Your task to perform on an android device: Show the shopping cart on bestbuy.com. Search for "bose quietcomfort 35" on bestbuy.com, select the first entry, add it to the cart, then select checkout. Image 0: 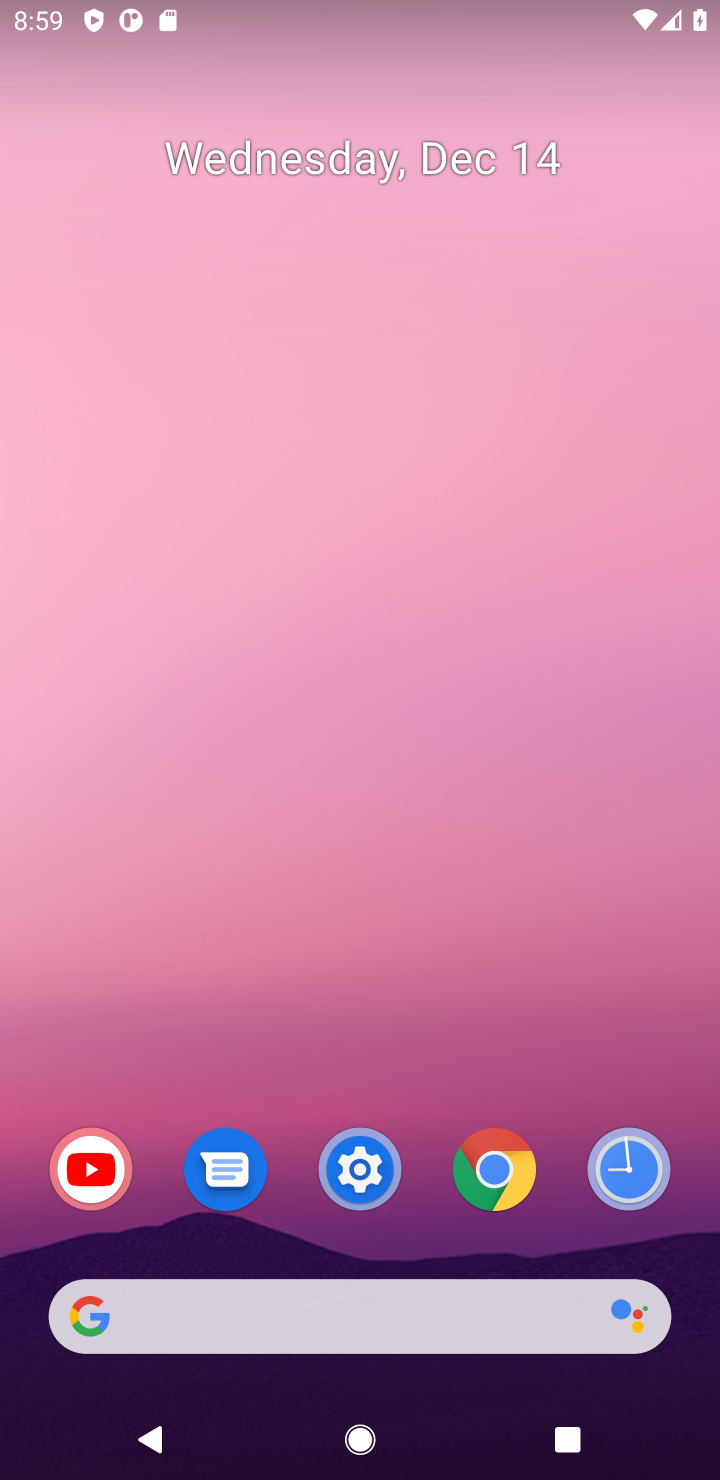
Step 0: click (487, 1158)
Your task to perform on an android device: Show the shopping cart on bestbuy.com. Search for "bose quietcomfort 35" on bestbuy.com, select the first entry, add it to the cart, then select checkout. Image 1: 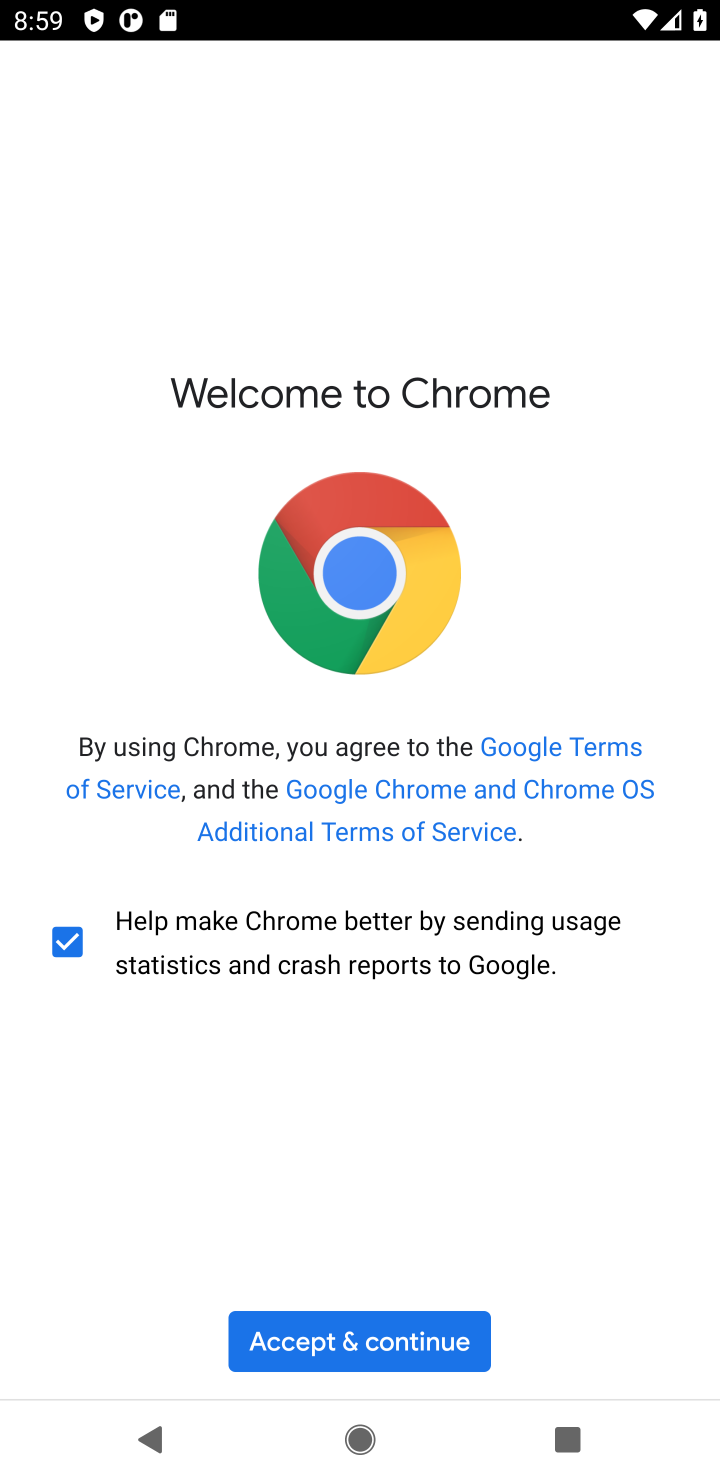
Step 1: click (333, 1335)
Your task to perform on an android device: Show the shopping cart on bestbuy.com. Search for "bose quietcomfort 35" on bestbuy.com, select the first entry, add it to the cart, then select checkout. Image 2: 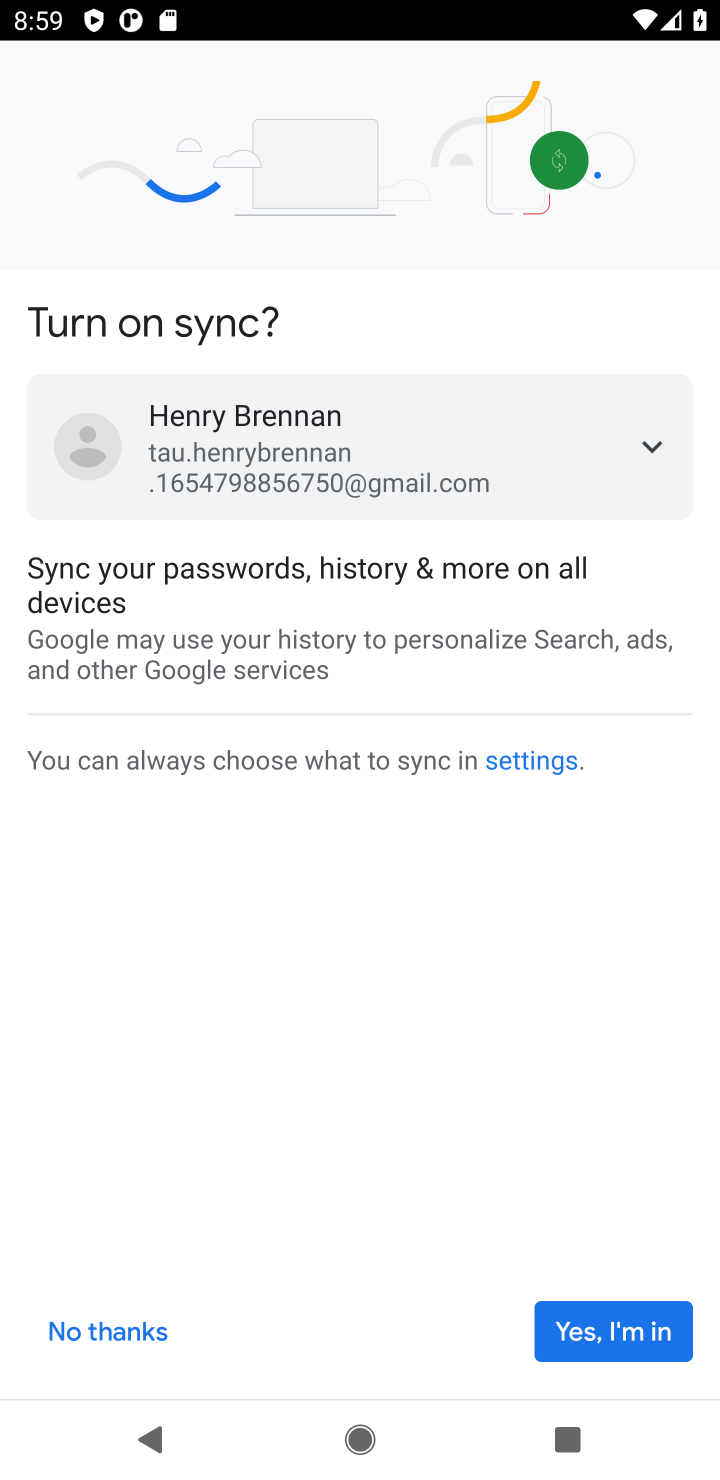
Step 2: click (583, 1318)
Your task to perform on an android device: Show the shopping cart on bestbuy.com. Search for "bose quietcomfort 35" on bestbuy.com, select the first entry, add it to the cart, then select checkout. Image 3: 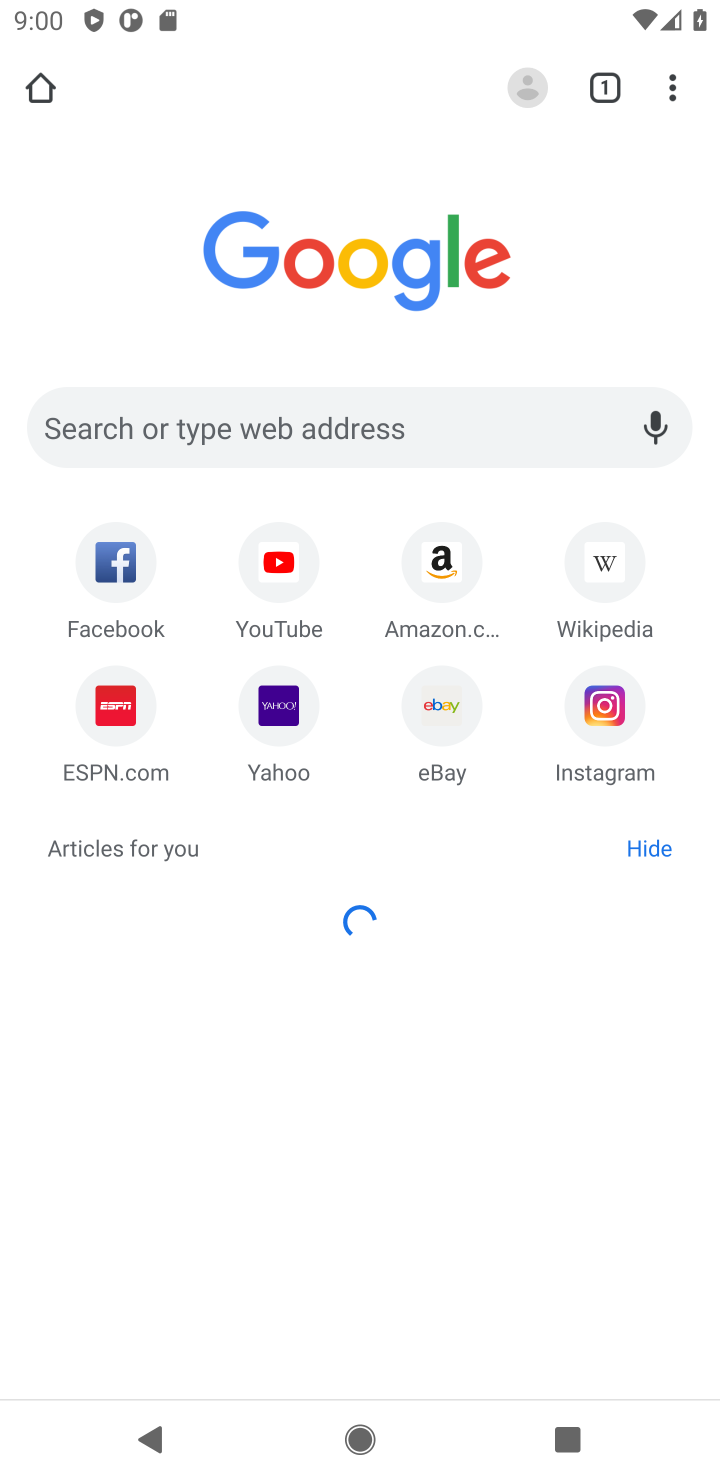
Step 3: click (273, 435)
Your task to perform on an android device: Show the shopping cart on bestbuy.com. Search for "bose quietcomfort 35" on bestbuy.com, select the first entry, add it to the cart, then select checkout. Image 4: 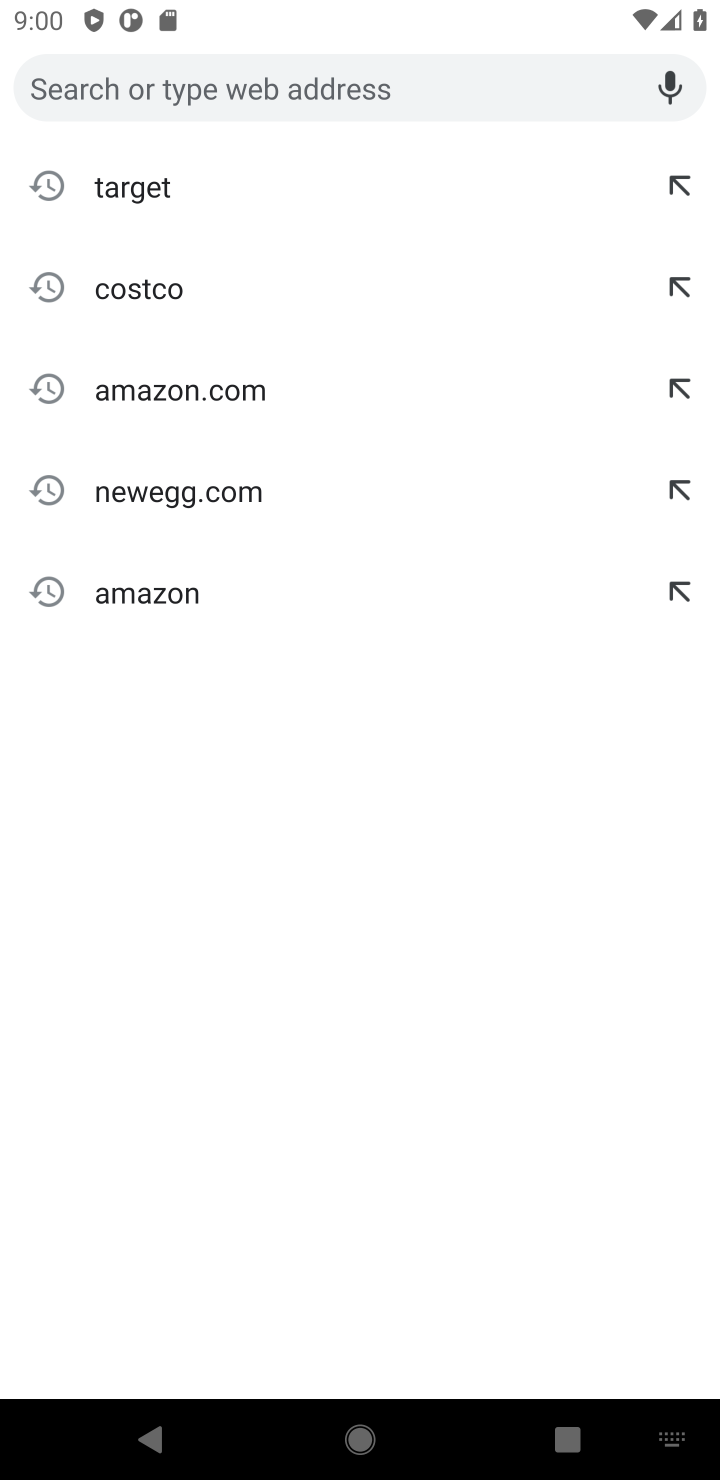
Step 4: type "bestbuy"
Your task to perform on an android device: Show the shopping cart on bestbuy.com. Search for "bose quietcomfort 35" on bestbuy.com, select the first entry, add it to the cart, then select checkout. Image 5: 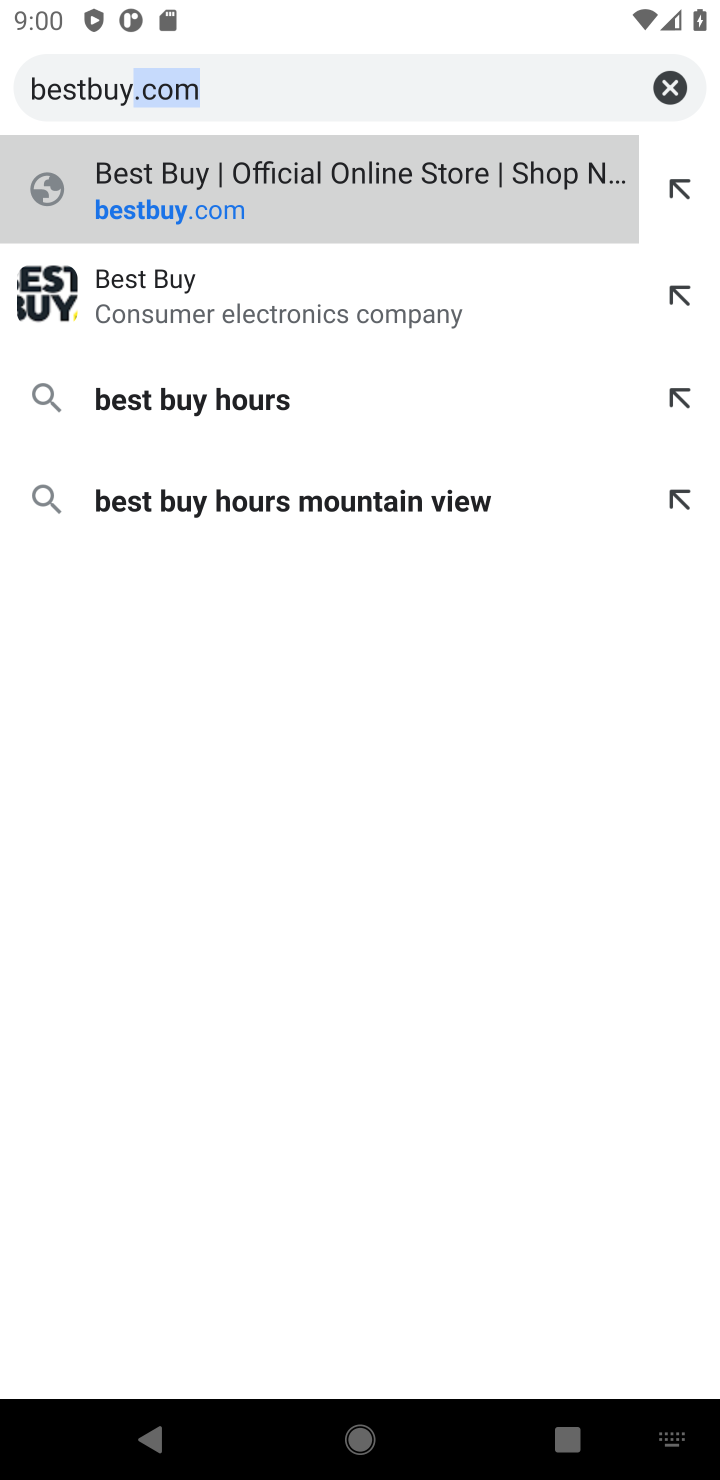
Step 5: click (163, 79)
Your task to perform on an android device: Show the shopping cart on bestbuy.com. Search for "bose quietcomfort 35" on bestbuy.com, select the first entry, add it to the cart, then select checkout. Image 6: 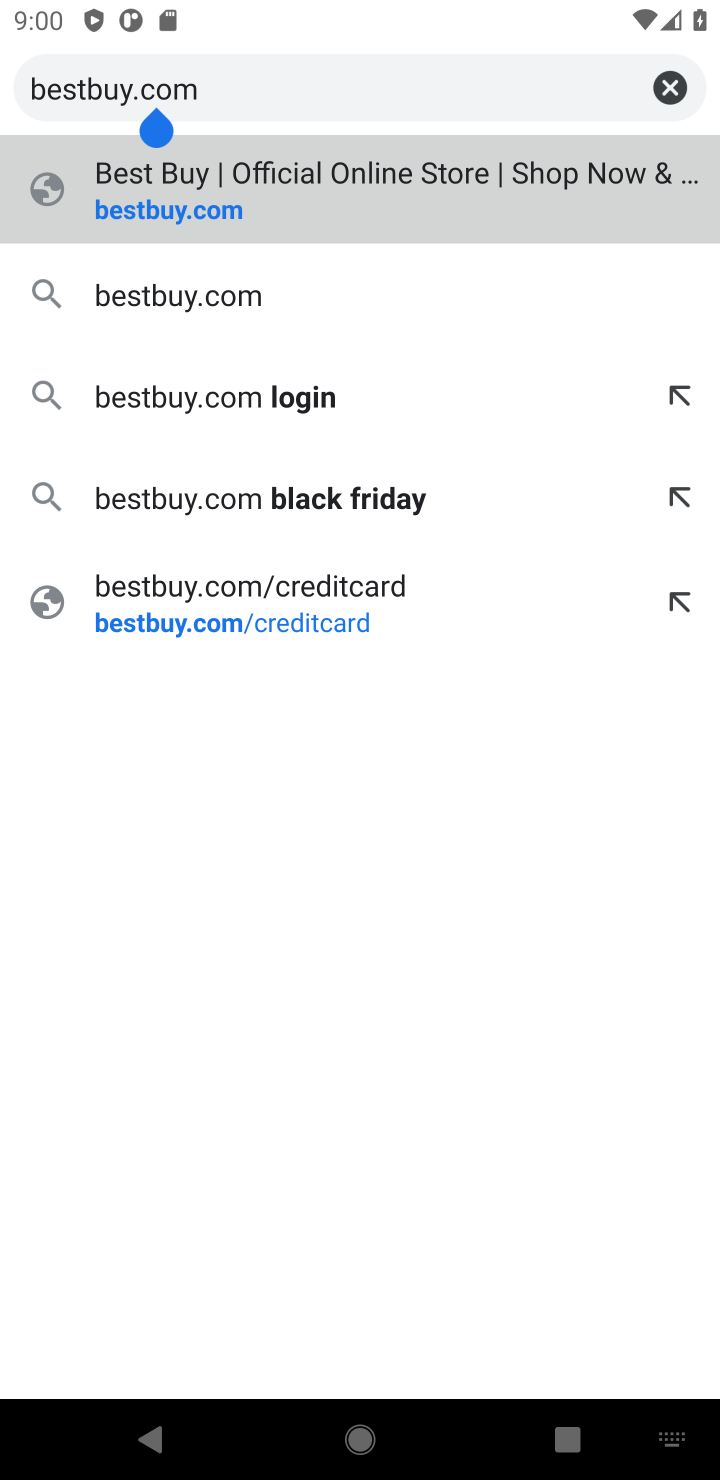
Step 6: click (174, 183)
Your task to perform on an android device: Show the shopping cart on bestbuy.com. Search for "bose quietcomfort 35" on bestbuy.com, select the first entry, add it to the cart, then select checkout. Image 7: 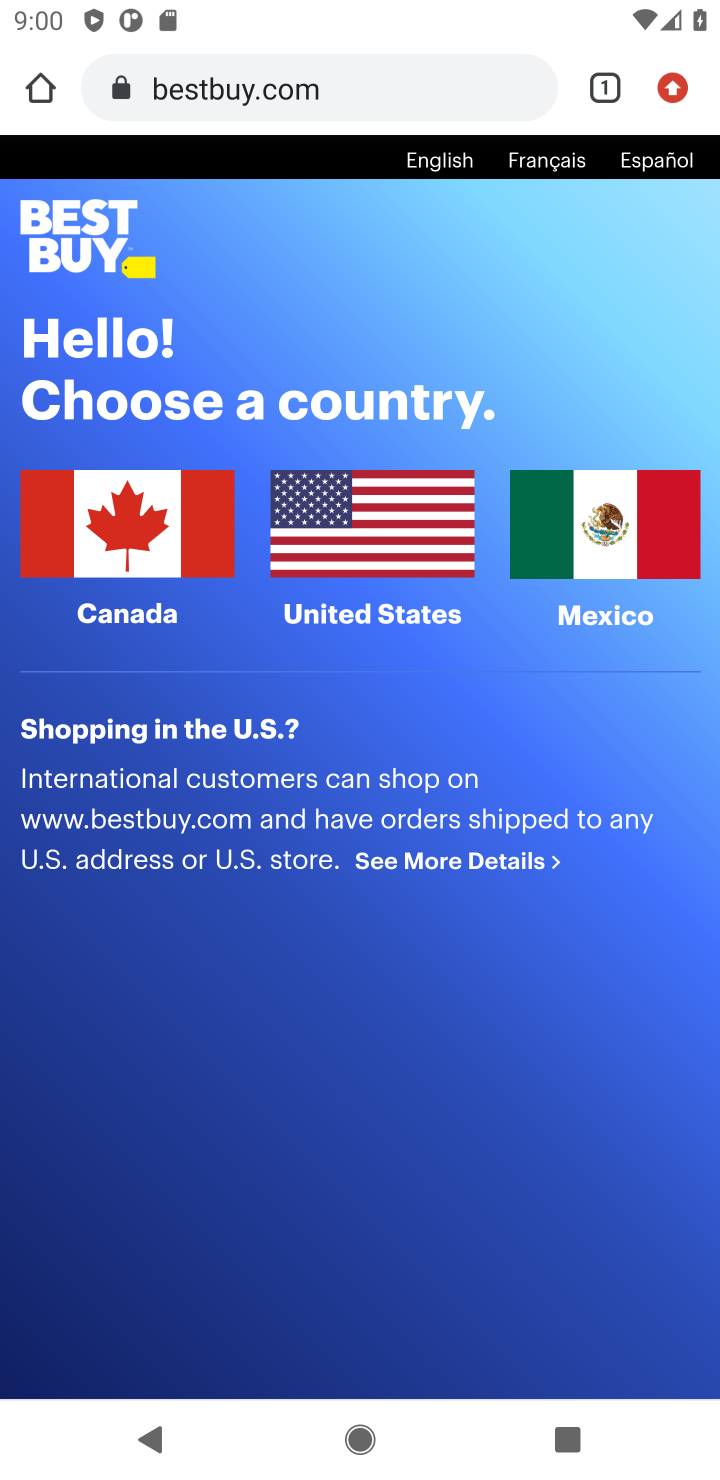
Step 7: click (423, 517)
Your task to perform on an android device: Show the shopping cart on bestbuy.com. Search for "bose quietcomfort 35" on bestbuy.com, select the first entry, add it to the cart, then select checkout. Image 8: 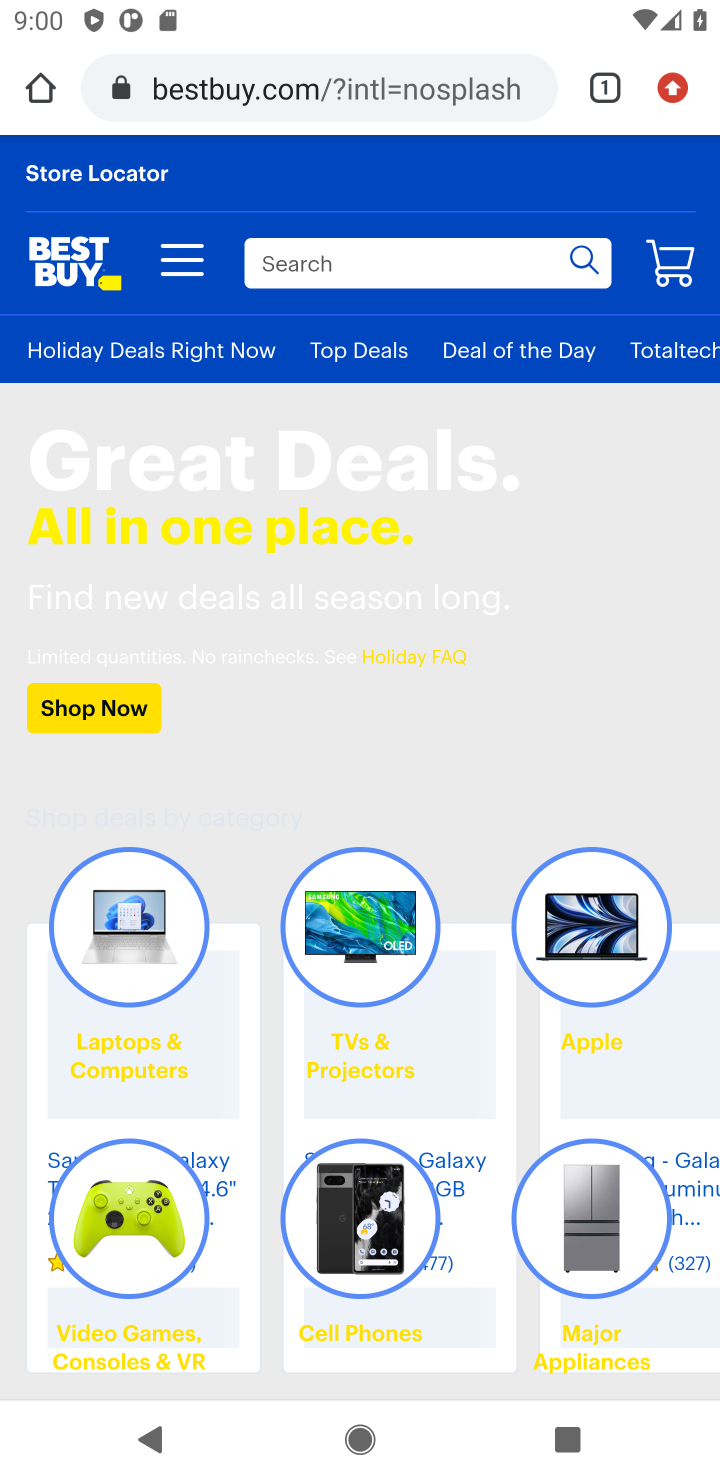
Step 8: click (410, 273)
Your task to perform on an android device: Show the shopping cart on bestbuy.com. Search for "bose quietcomfort 35" on bestbuy.com, select the first entry, add it to the cart, then select checkout. Image 9: 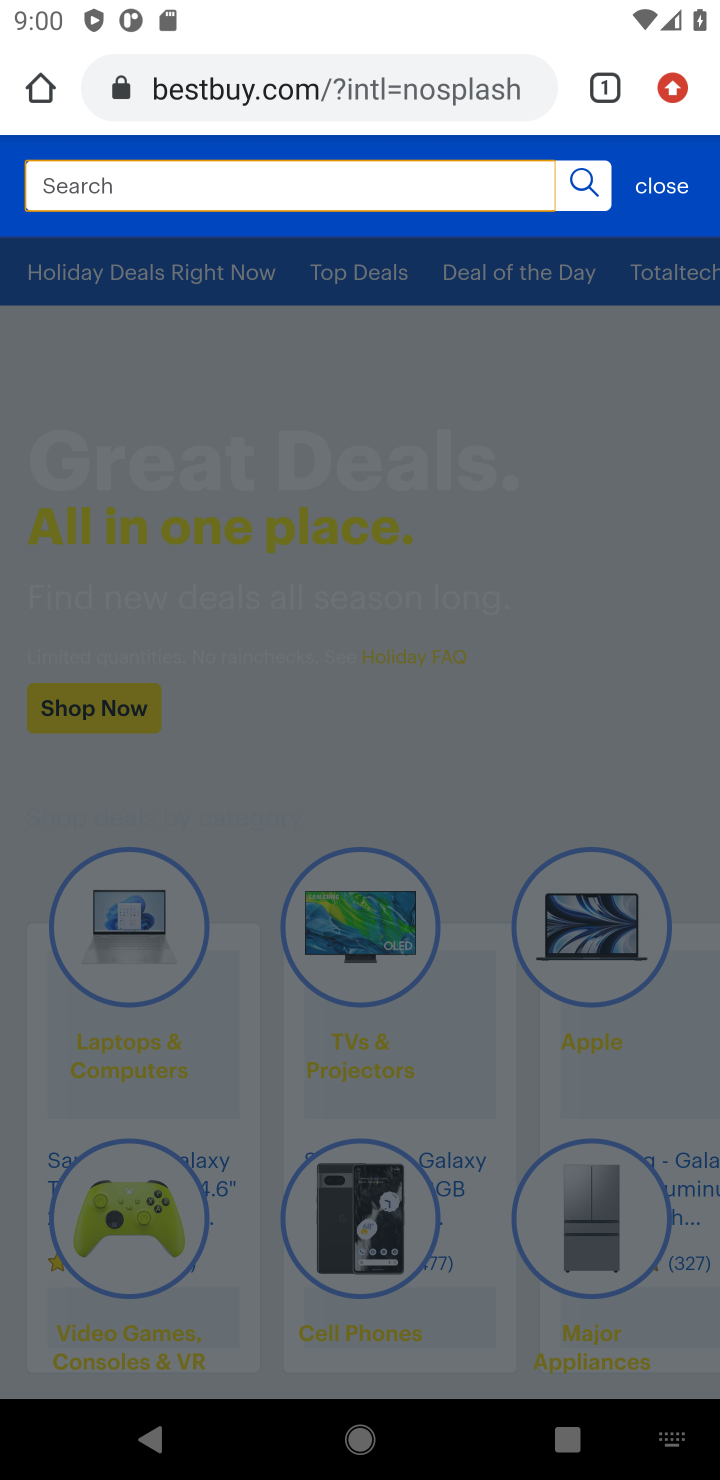
Step 9: type "panasonic triple a batteries"
Your task to perform on an android device: Show the shopping cart on bestbuy.com. Search for "bose quietcomfort 35" on bestbuy.com, select the first entry, add it to the cart, then select checkout. Image 10: 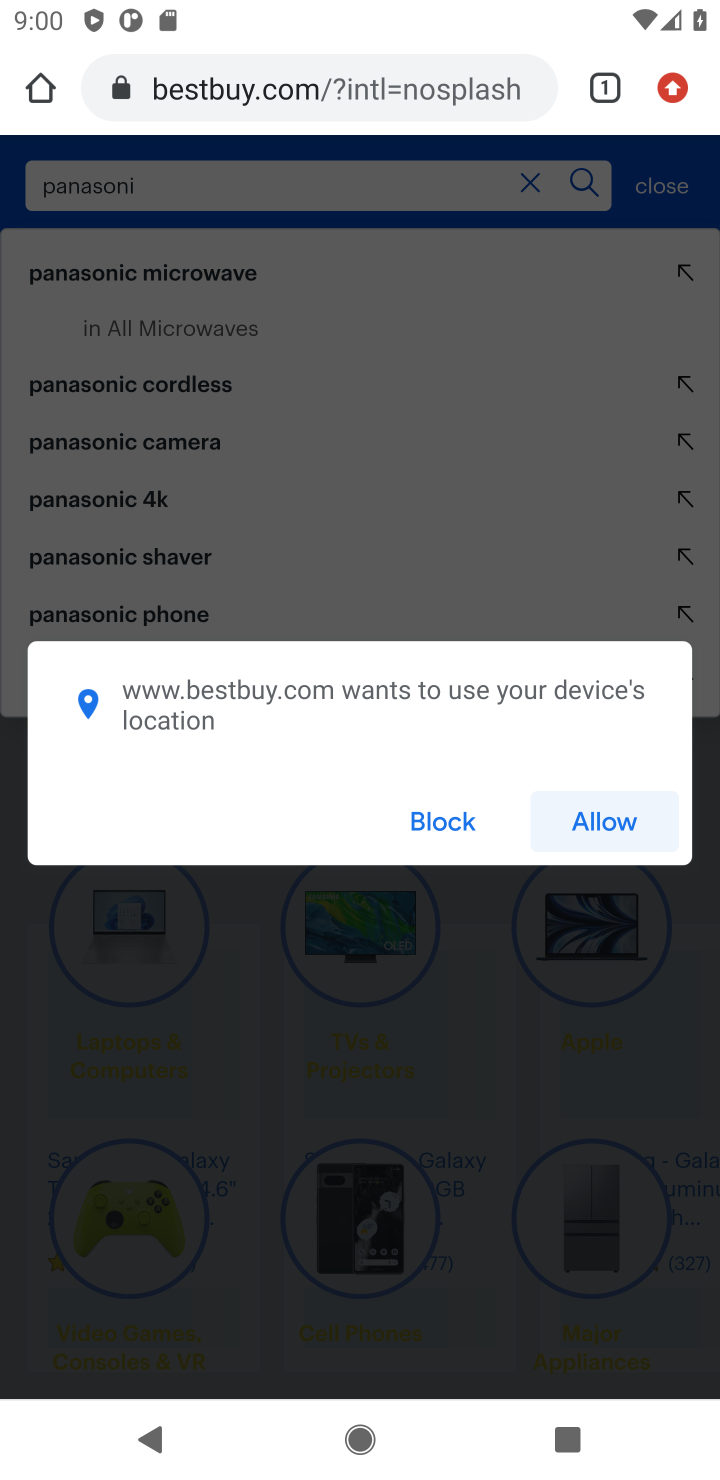
Step 10: click (421, 813)
Your task to perform on an android device: Show the shopping cart on bestbuy.com. Search for "bose quietcomfort 35" on bestbuy.com, select the first entry, add it to the cart, then select checkout. Image 11: 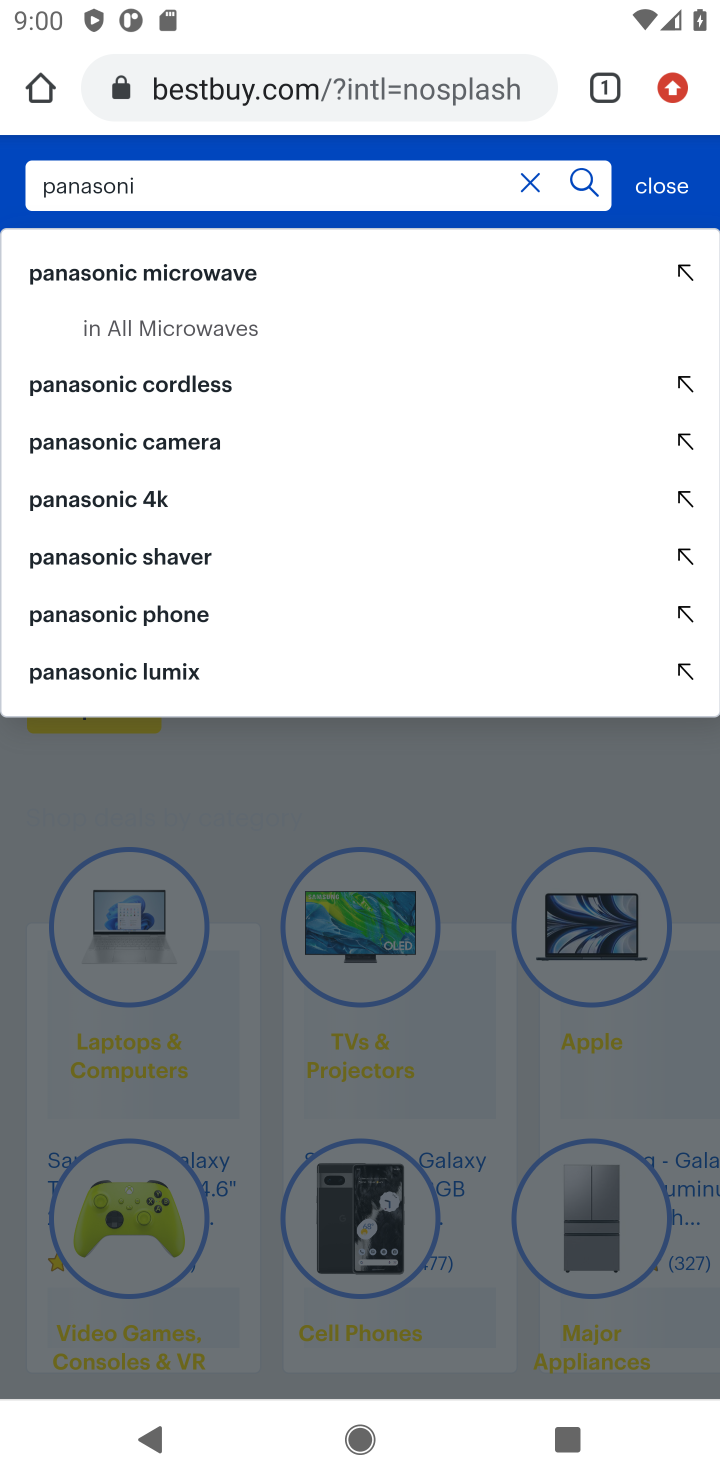
Step 11: click (534, 179)
Your task to perform on an android device: Show the shopping cart on bestbuy.com. Search for "bose quietcomfort 35" on bestbuy.com, select the first entry, add it to the cart, then select checkout. Image 12: 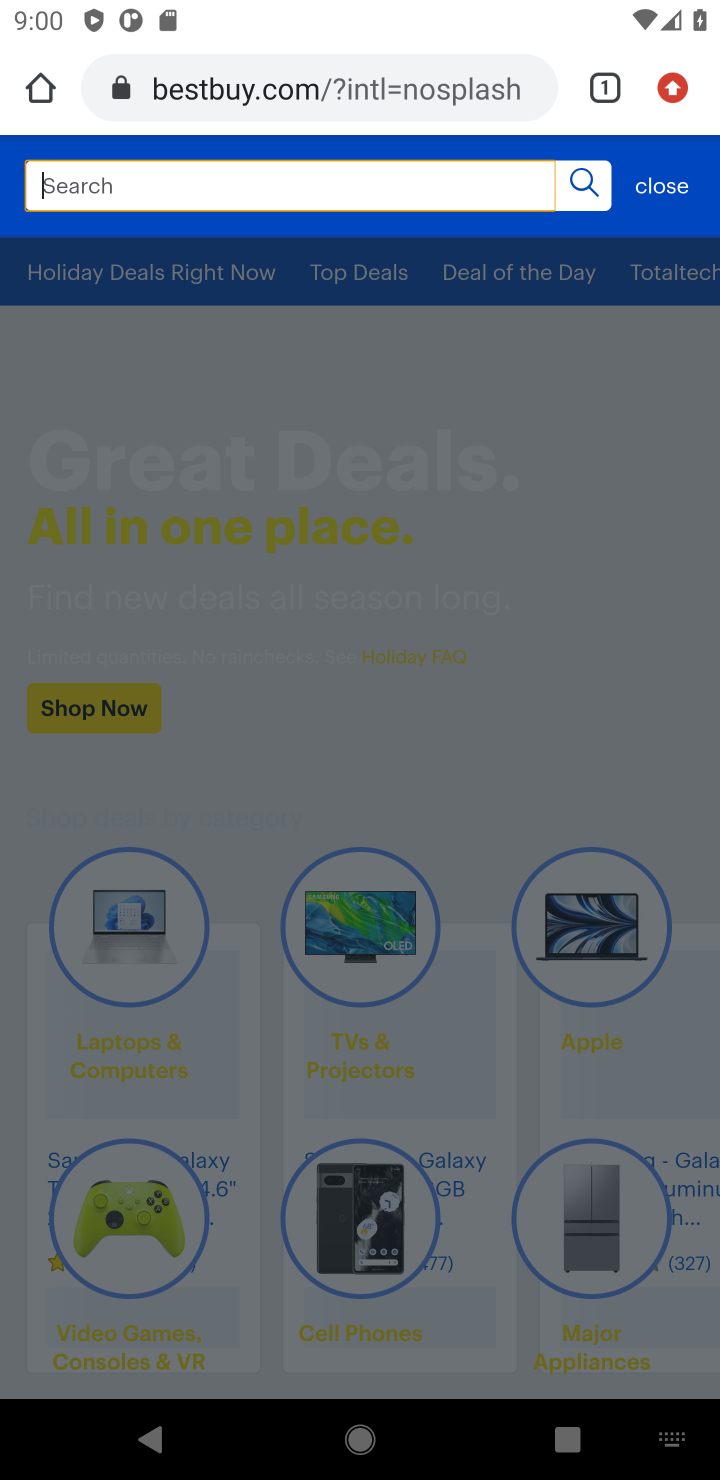
Step 12: type "panasonic triple a batteries"
Your task to perform on an android device: Show the shopping cart on bestbuy.com. Search for "bose quietcomfort 35" on bestbuy.com, select the first entry, add it to the cart, then select checkout. Image 13: 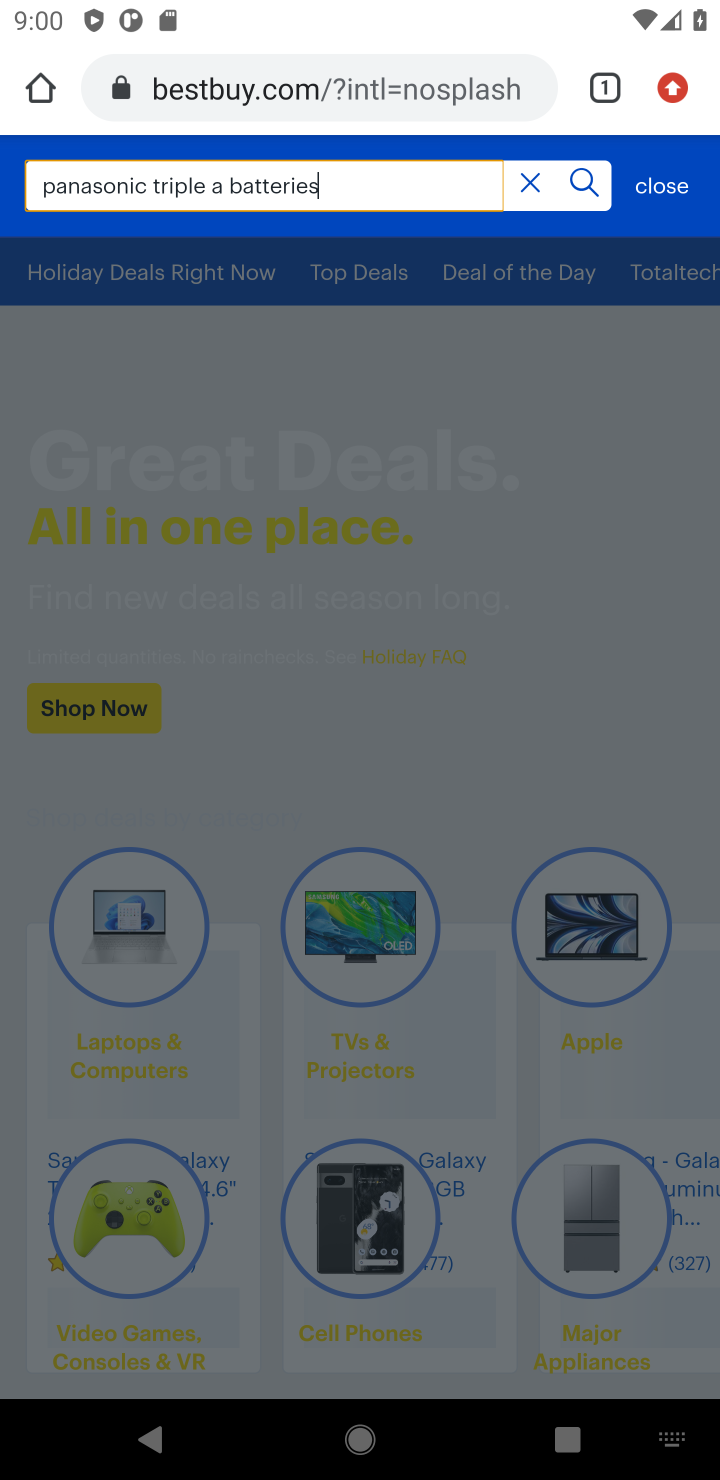
Step 13: click (580, 178)
Your task to perform on an android device: Show the shopping cart on bestbuy.com. Search for "bose quietcomfort 35" on bestbuy.com, select the first entry, add it to the cart, then select checkout. Image 14: 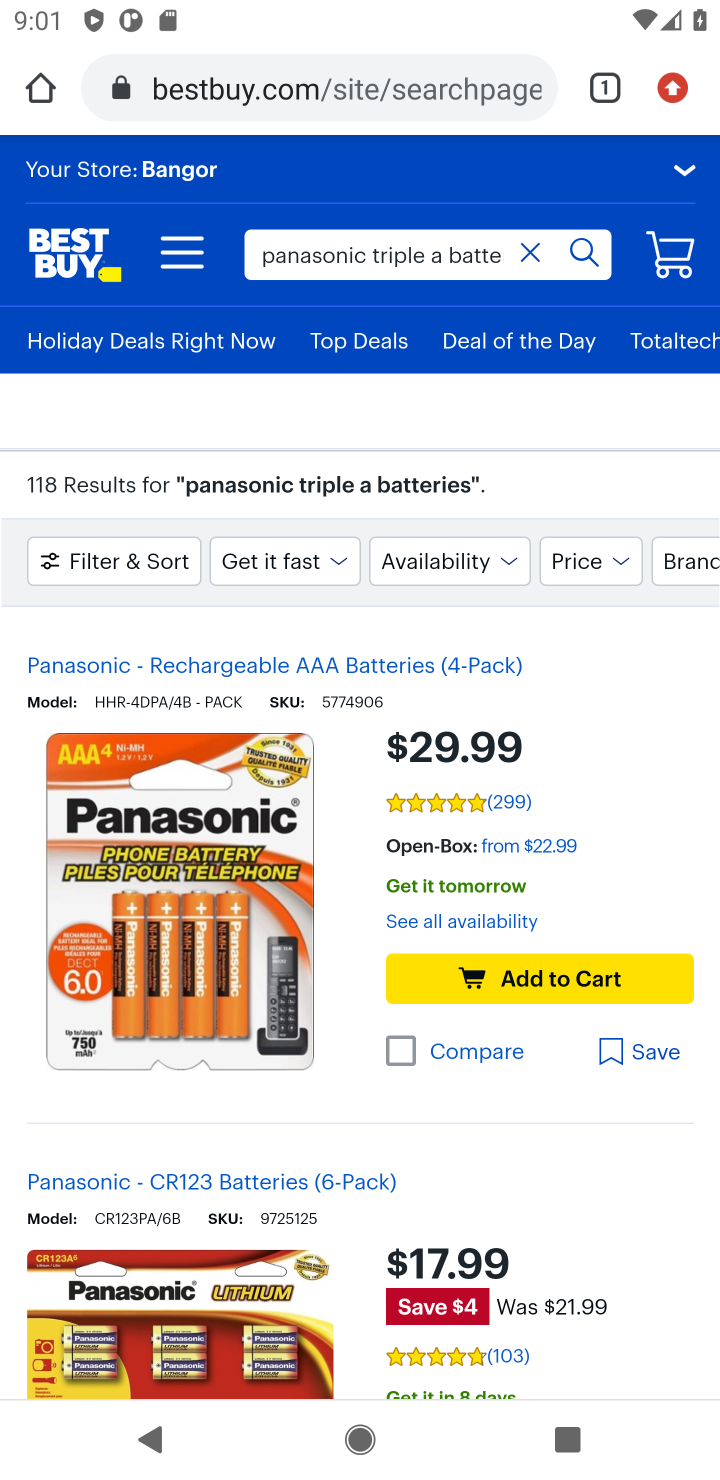
Step 14: click (562, 961)
Your task to perform on an android device: Show the shopping cart on bestbuy.com. Search for "bose quietcomfort 35" on bestbuy.com, select the first entry, add it to the cart, then select checkout. Image 15: 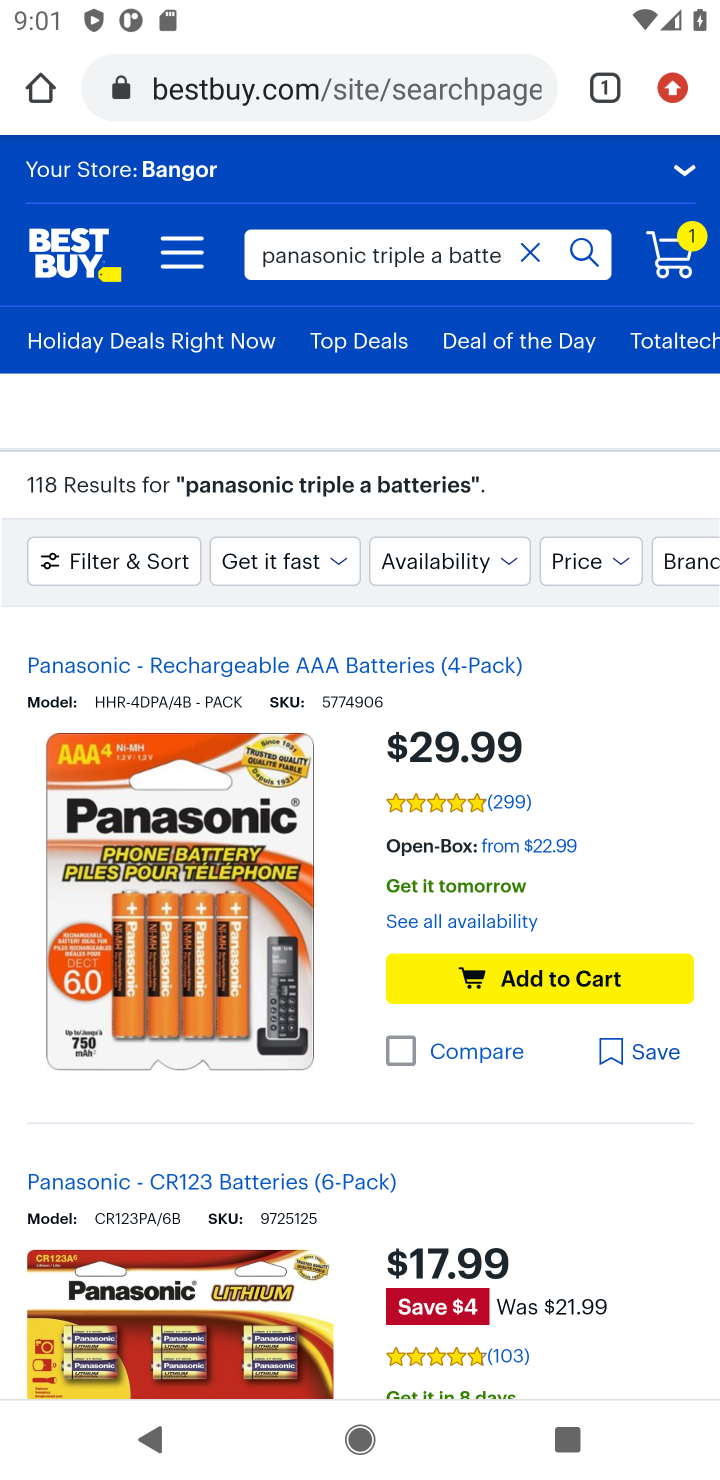
Step 15: task complete